Your task to perform on an android device: Search for "macbook air" on ebay.com, select the first entry, and add it to the cart. Image 0: 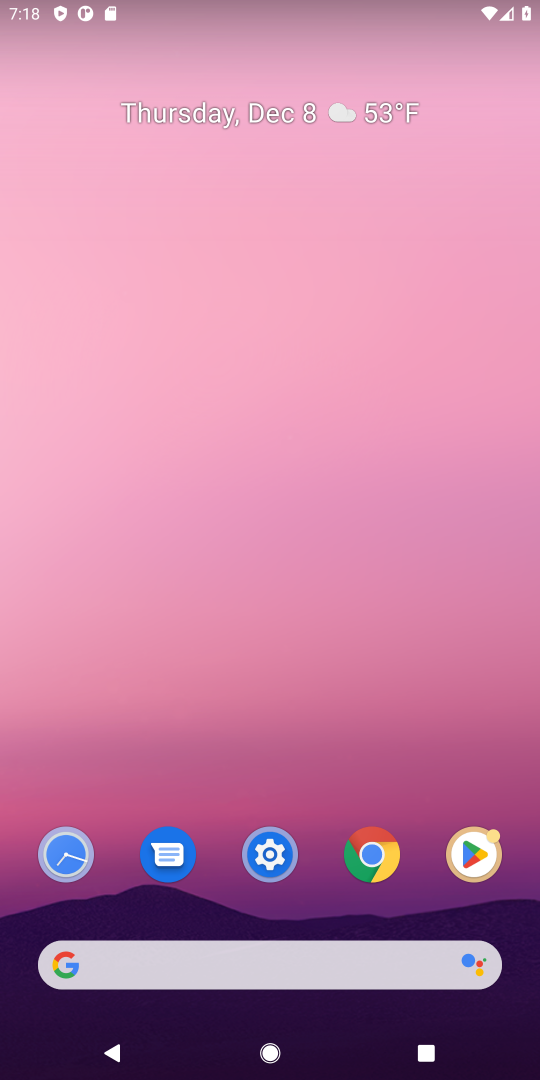
Step 0: press home button
Your task to perform on an android device: Search for "macbook air" on ebay.com, select the first entry, and add it to the cart. Image 1: 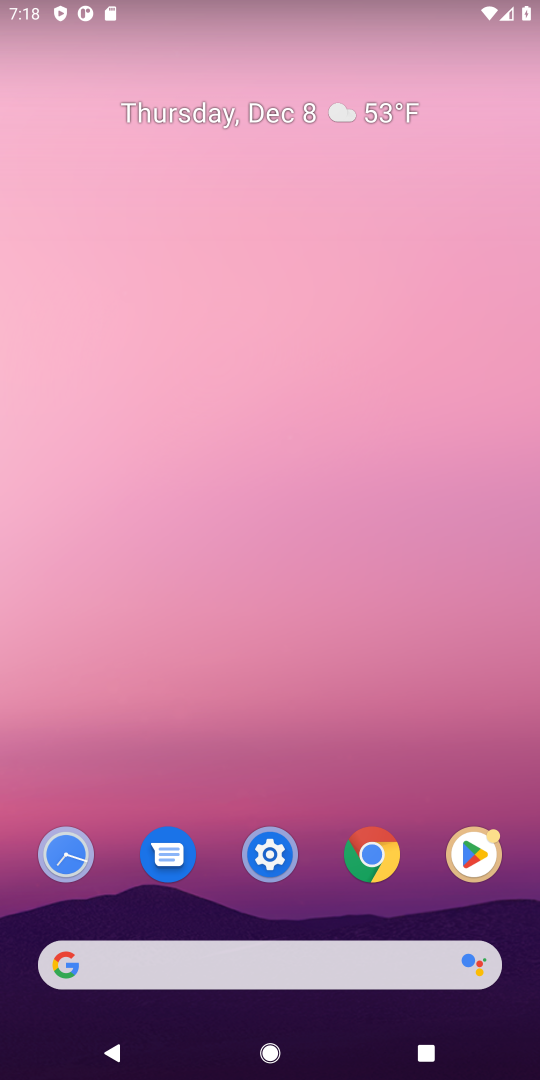
Step 1: click (90, 956)
Your task to perform on an android device: Search for "macbook air" on ebay.com, select the first entry, and add it to the cart. Image 2: 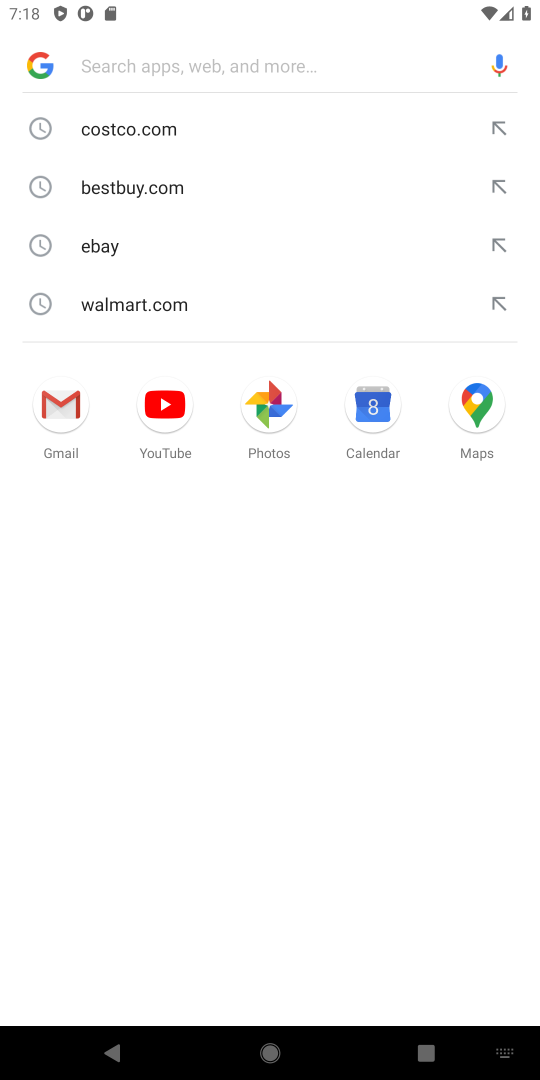
Step 2: type "ebay.com"
Your task to perform on an android device: Search for "macbook air" on ebay.com, select the first entry, and add it to the cart. Image 3: 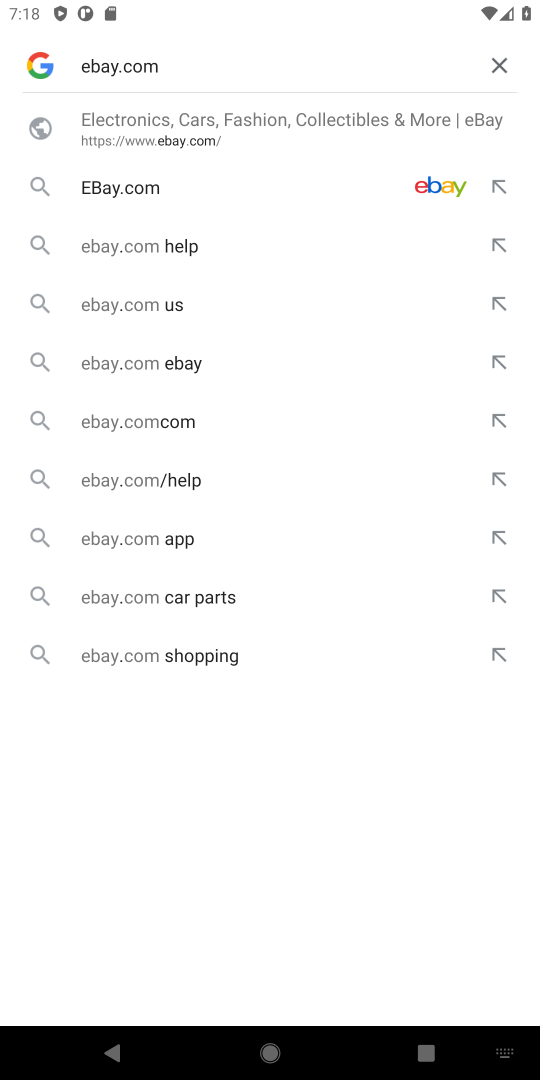
Step 3: press enter
Your task to perform on an android device: Search for "macbook air" on ebay.com, select the first entry, and add it to the cart. Image 4: 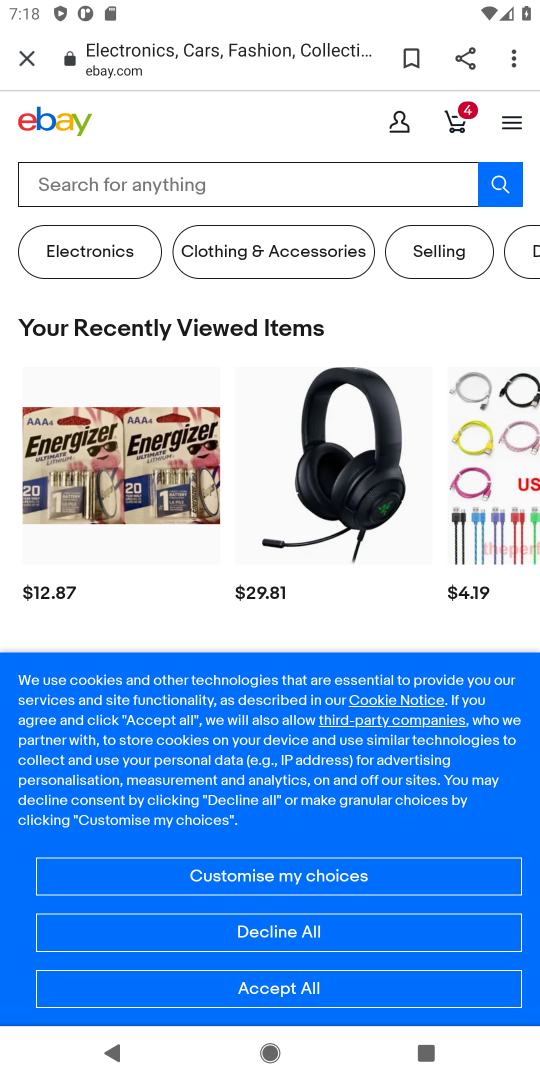
Step 4: click (50, 175)
Your task to perform on an android device: Search for "macbook air" on ebay.com, select the first entry, and add it to the cart. Image 5: 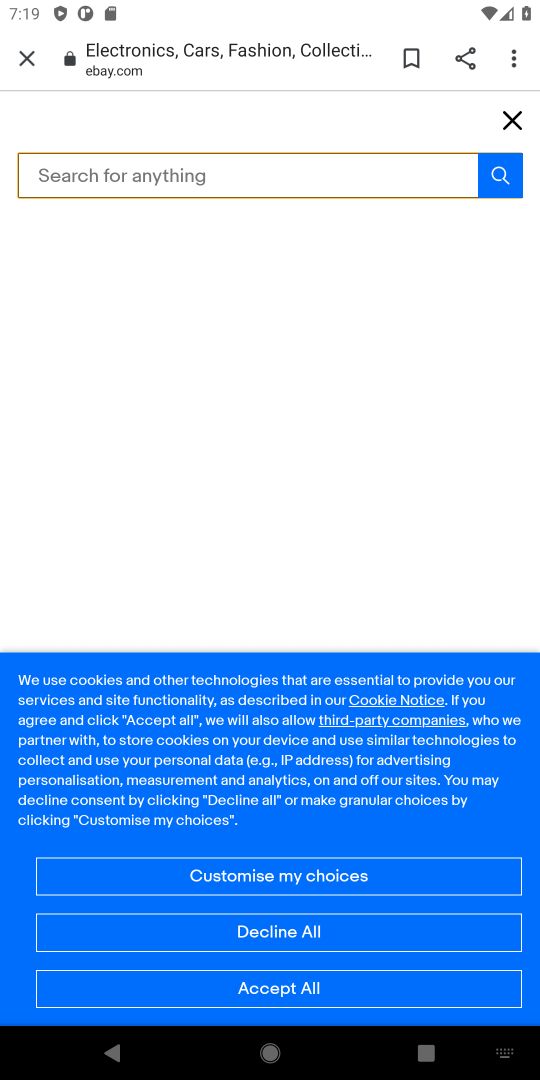
Step 5: press enter
Your task to perform on an android device: Search for "macbook air" on ebay.com, select the first entry, and add it to the cart. Image 6: 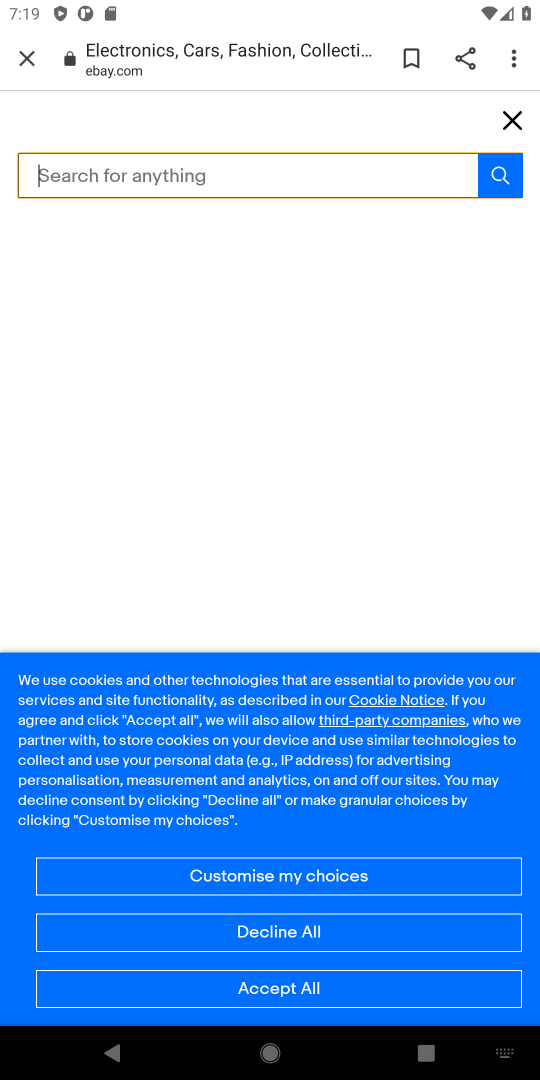
Step 6: type "macbook air"
Your task to perform on an android device: Search for "macbook air" on ebay.com, select the first entry, and add it to the cart. Image 7: 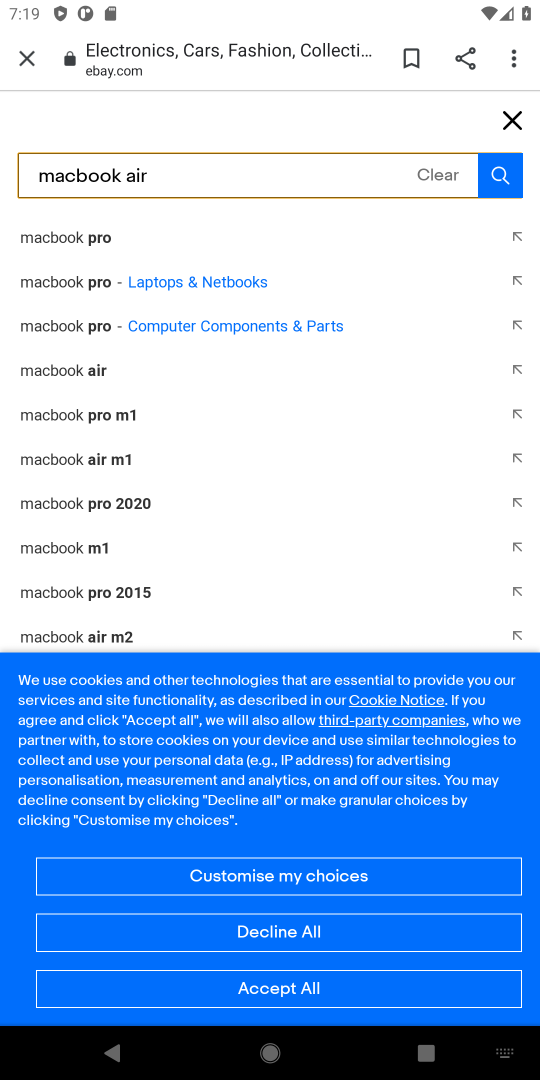
Step 7: click (491, 180)
Your task to perform on an android device: Search for "macbook air" on ebay.com, select the first entry, and add it to the cart. Image 8: 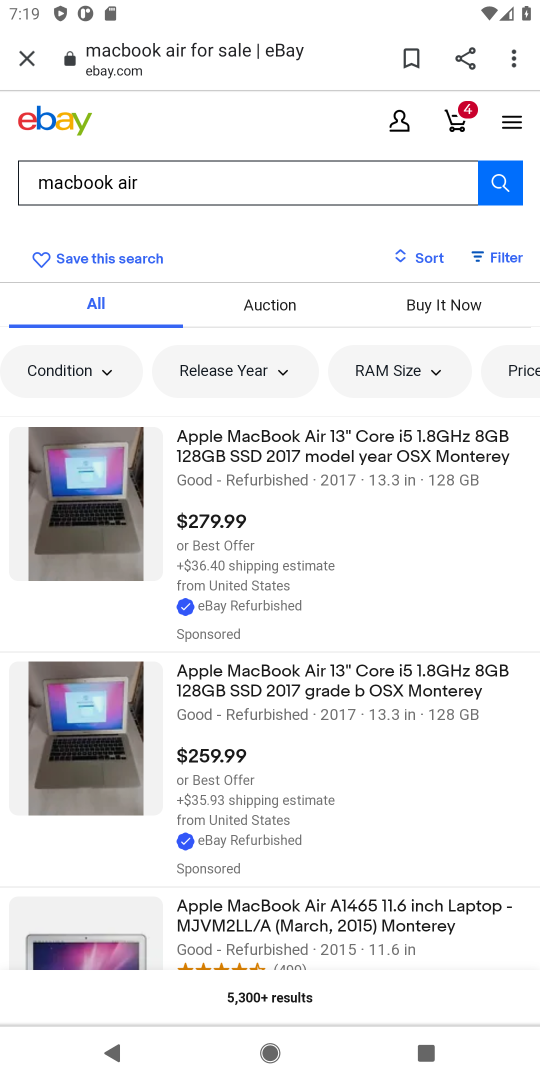
Step 8: click (267, 452)
Your task to perform on an android device: Search for "macbook air" on ebay.com, select the first entry, and add it to the cart. Image 9: 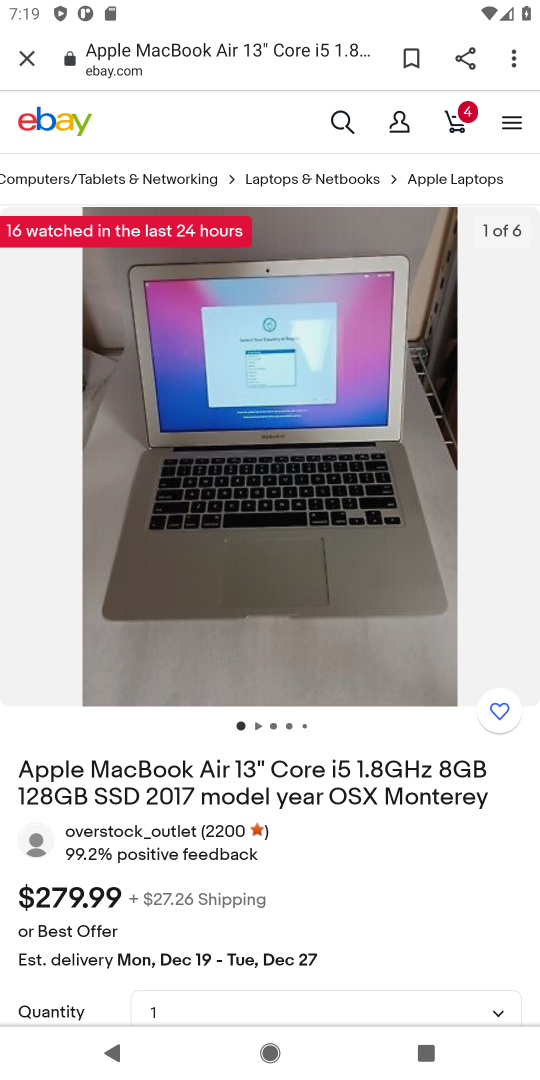
Step 9: drag from (405, 804) to (408, 338)
Your task to perform on an android device: Search for "macbook air" on ebay.com, select the first entry, and add it to the cart. Image 10: 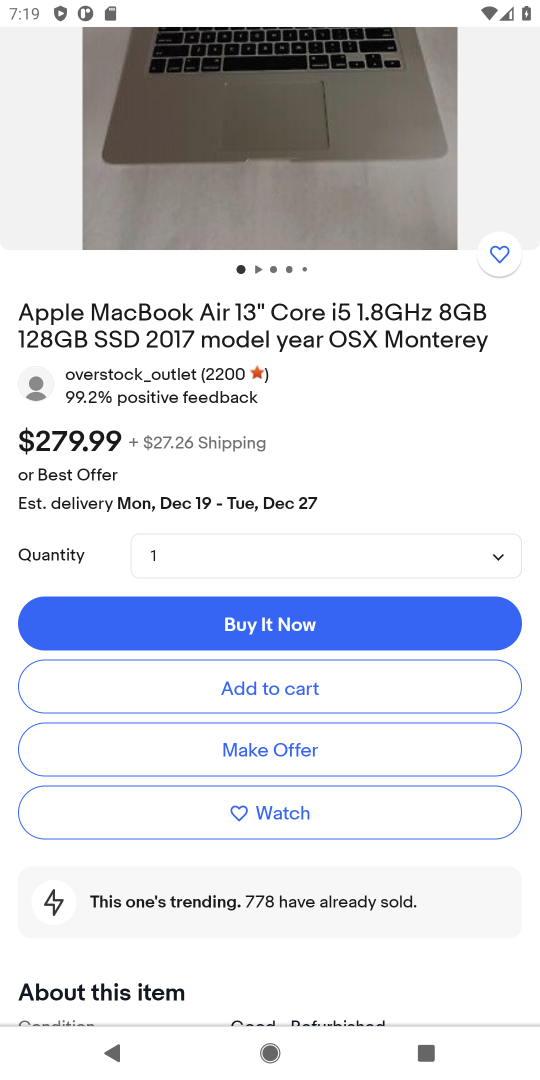
Step 10: click (282, 689)
Your task to perform on an android device: Search for "macbook air" on ebay.com, select the first entry, and add it to the cart. Image 11: 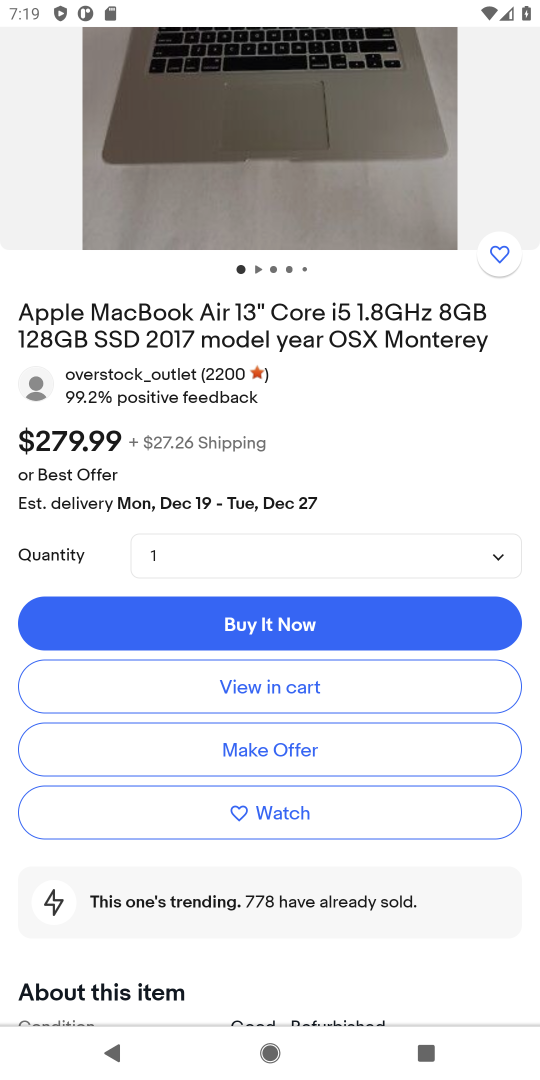
Step 11: task complete